Your task to perform on an android device: What's on my calendar today? Image 0: 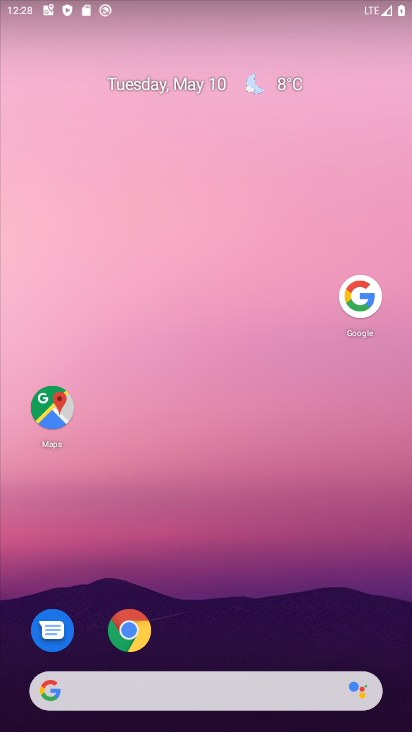
Step 0: drag from (216, 673) to (325, 35)
Your task to perform on an android device: What's on my calendar today? Image 1: 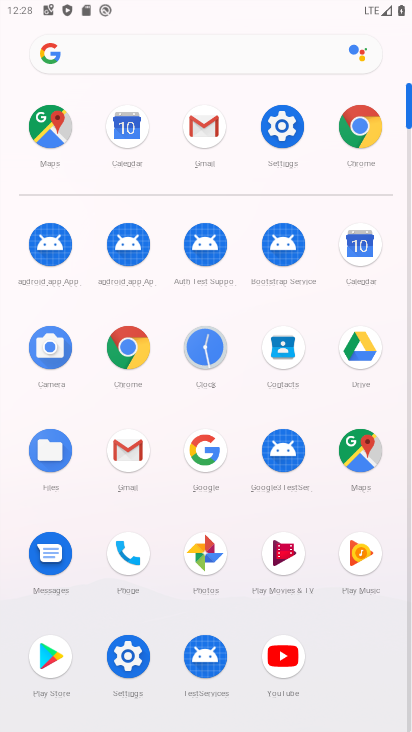
Step 1: click (359, 256)
Your task to perform on an android device: What's on my calendar today? Image 2: 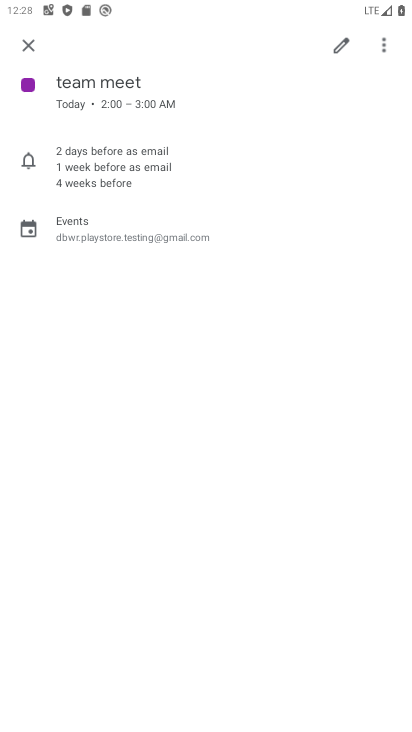
Step 2: click (30, 39)
Your task to perform on an android device: What's on my calendar today? Image 3: 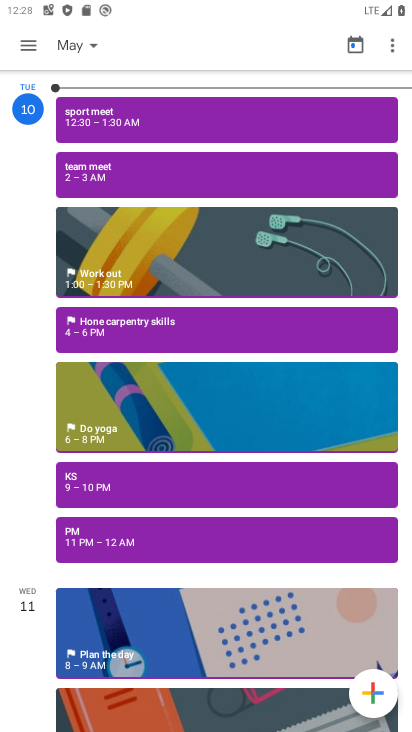
Step 3: click (67, 51)
Your task to perform on an android device: What's on my calendar today? Image 4: 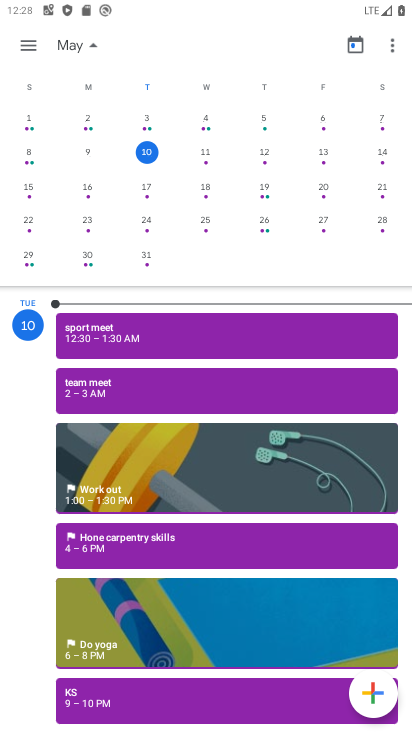
Step 4: click (25, 43)
Your task to perform on an android device: What's on my calendar today? Image 5: 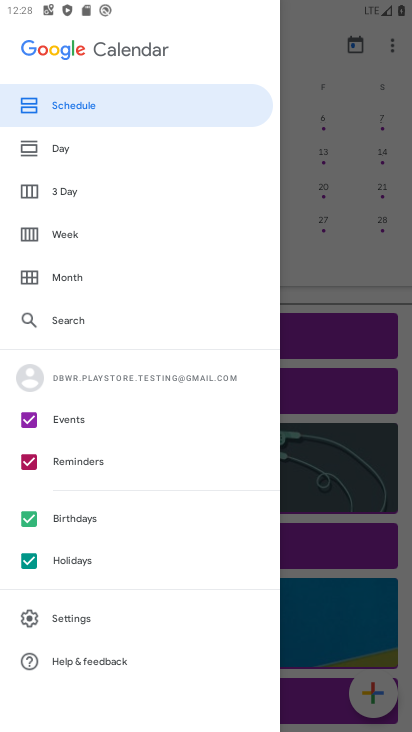
Step 5: click (63, 112)
Your task to perform on an android device: What's on my calendar today? Image 6: 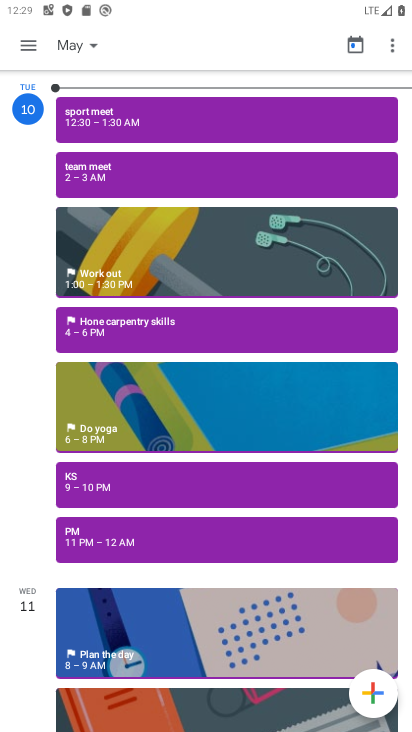
Step 6: task complete